Your task to perform on an android device: see tabs open on other devices in the chrome app Image 0: 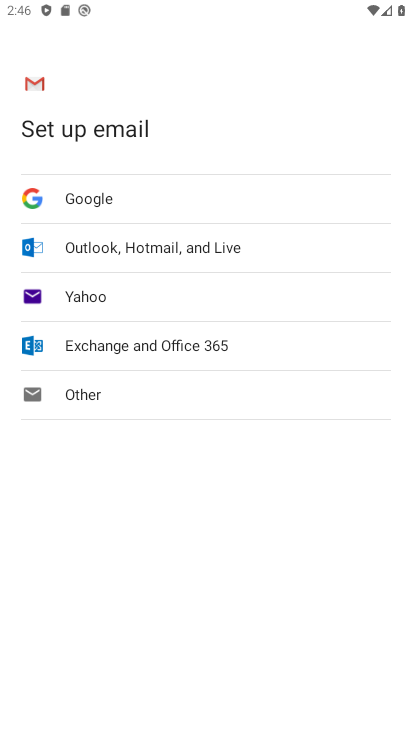
Step 0: press home button
Your task to perform on an android device: see tabs open on other devices in the chrome app Image 1: 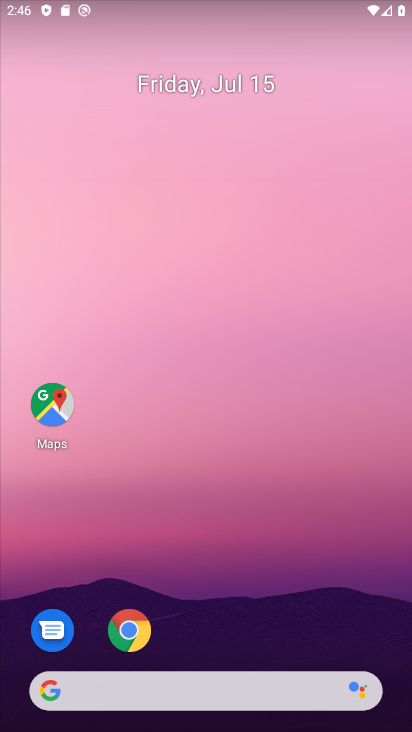
Step 1: press home button
Your task to perform on an android device: see tabs open on other devices in the chrome app Image 2: 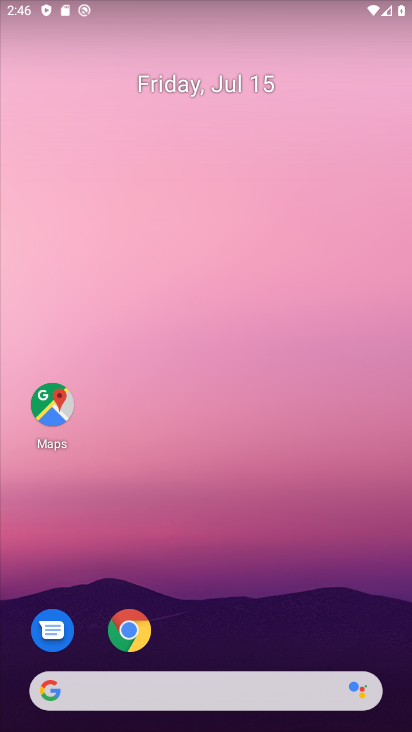
Step 2: click (132, 635)
Your task to perform on an android device: see tabs open on other devices in the chrome app Image 3: 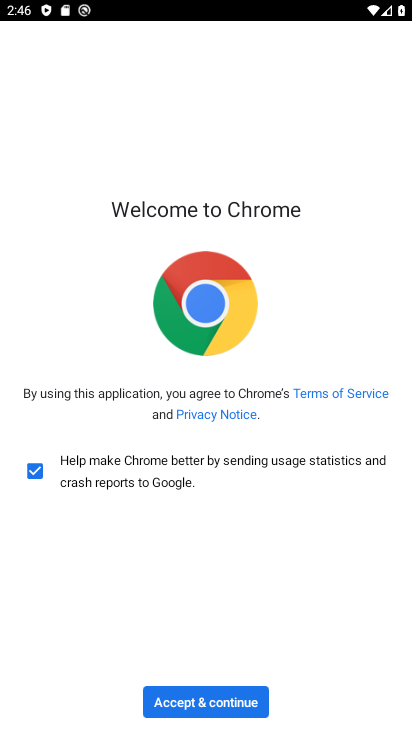
Step 3: click (220, 724)
Your task to perform on an android device: see tabs open on other devices in the chrome app Image 4: 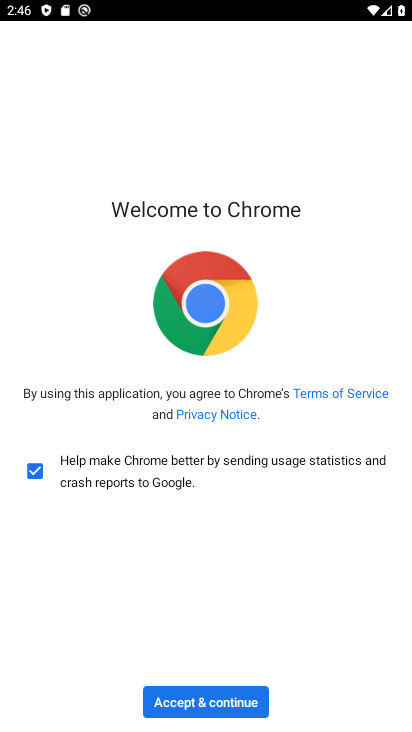
Step 4: click (220, 708)
Your task to perform on an android device: see tabs open on other devices in the chrome app Image 5: 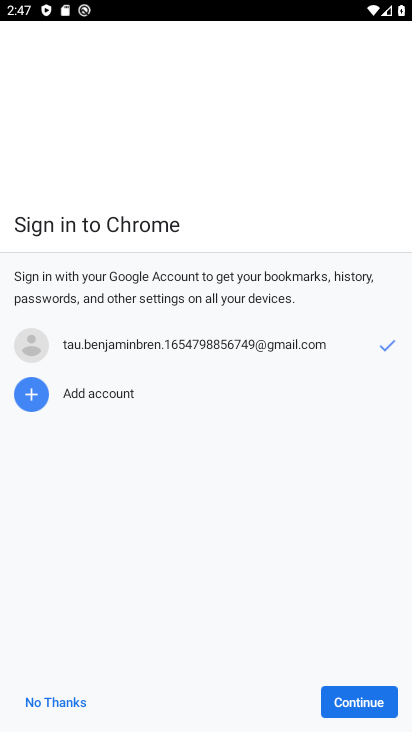
Step 5: click (361, 702)
Your task to perform on an android device: see tabs open on other devices in the chrome app Image 6: 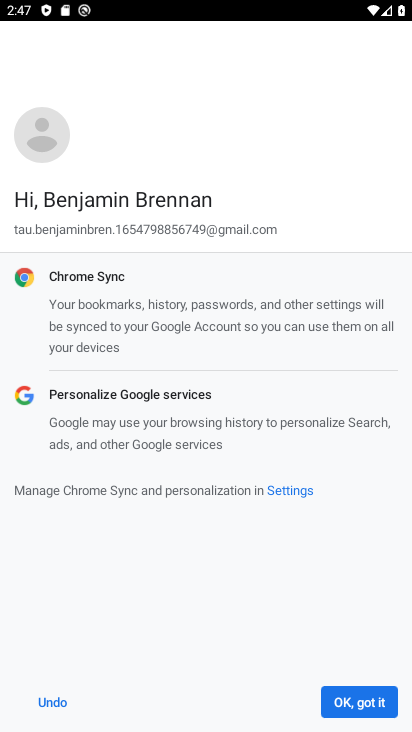
Step 6: click (363, 702)
Your task to perform on an android device: see tabs open on other devices in the chrome app Image 7: 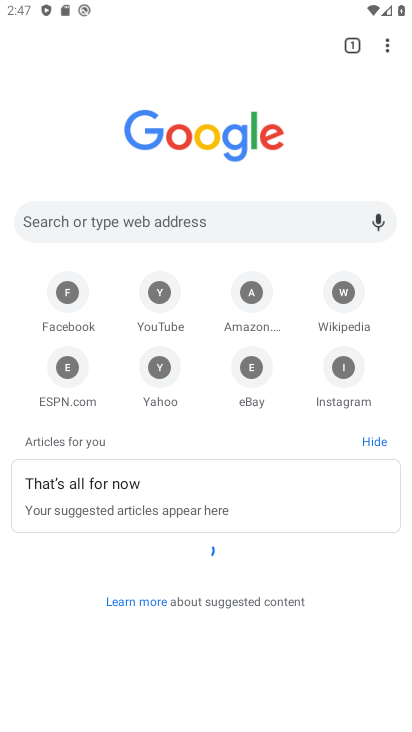
Step 7: click (376, 41)
Your task to perform on an android device: see tabs open on other devices in the chrome app Image 8: 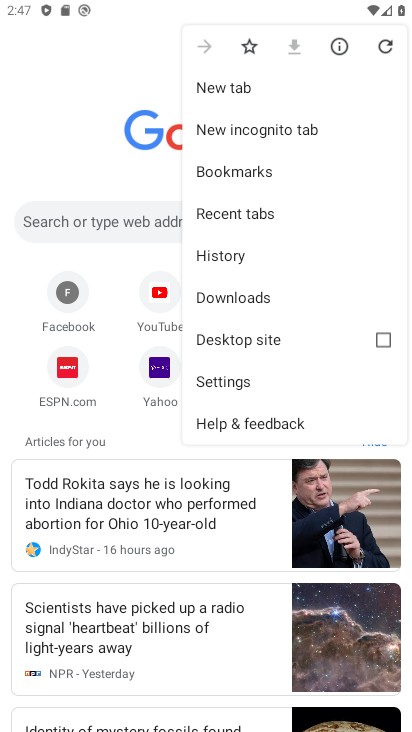
Step 8: click (249, 214)
Your task to perform on an android device: see tabs open on other devices in the chrome app Image 9: 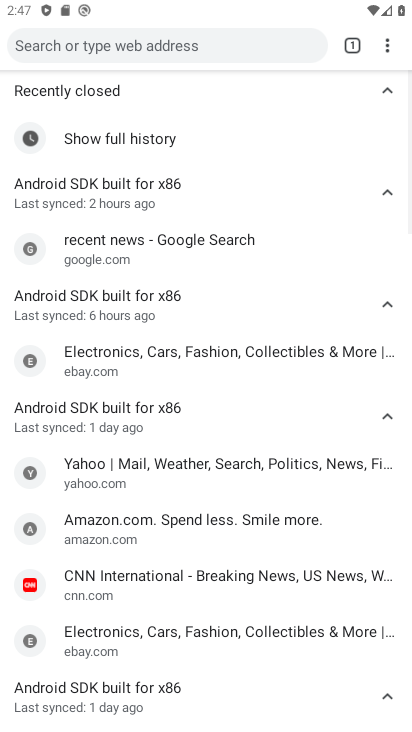
Step 9: task complete